Your task to perform on an android device: Go to settings Image 0: 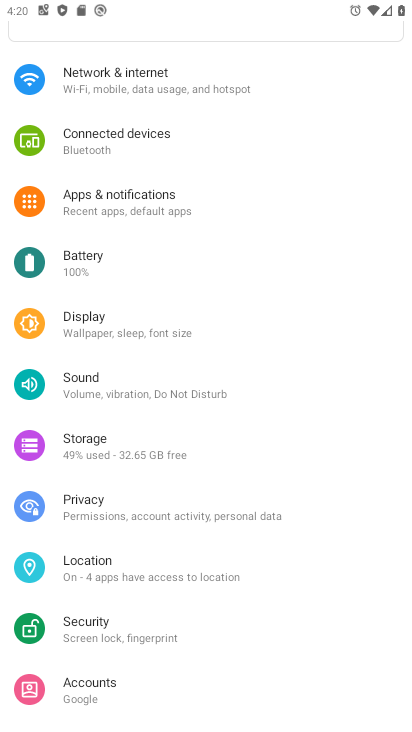
Step 0: press home button
Your task to perform on an android device: Go to settings Image 1: 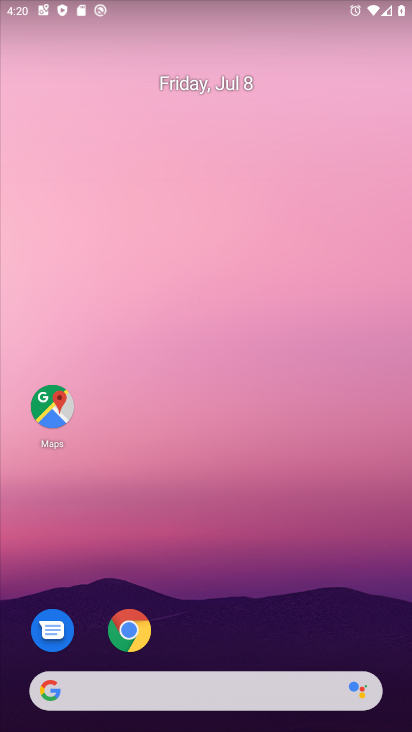
Step 1: drag from (219, 630) to (247, 173)
Your task to perform on an android device: Go to settings Image 2: 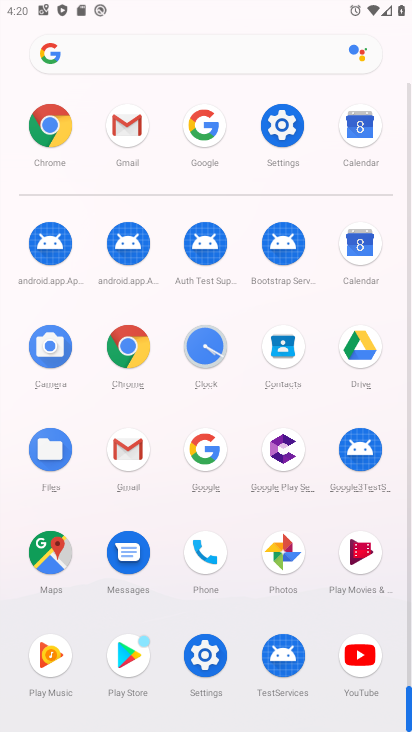
Step 2: click (281, 127)
Your task to perform on an android device: Go to settings Image 3: 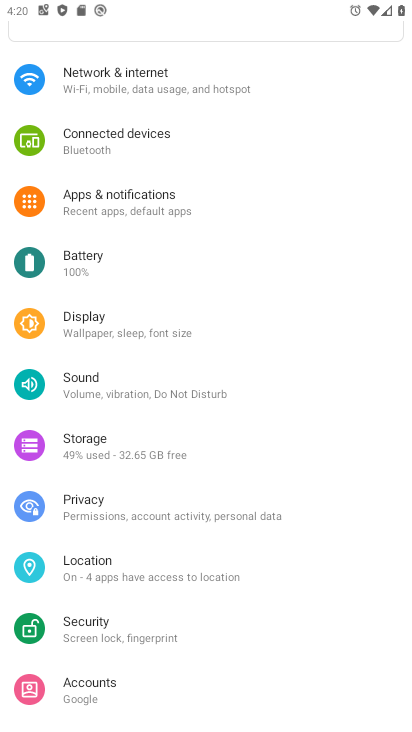
Step 3: task complete